Your task to perform on an android device: Open Youtube and go to "Your channel" Image 0: 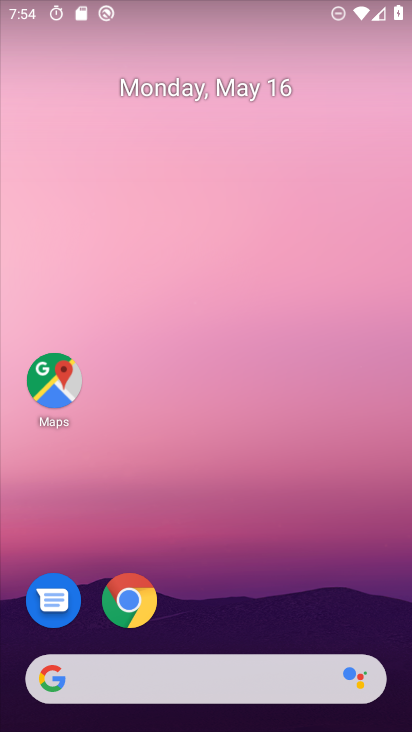
Step 0: drag from (194, 691) to (323, 277)
Your task to perform on an android device: Open Youtube and go to "Your channel" Image 1: 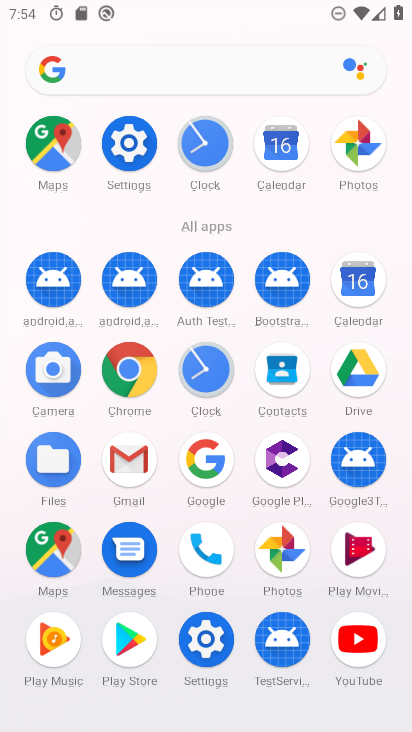
Step 1: click (367, 648)
Your task to perform on an android device: Open Youtube and go to "Your channel" Image 2: 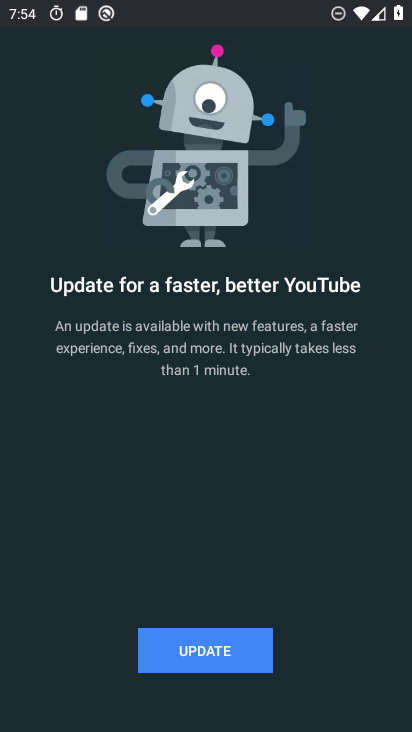
Step 2: click (212, 645)
Your task to perform on an android device: Open Youtube and go to "Your channel" Image 3: 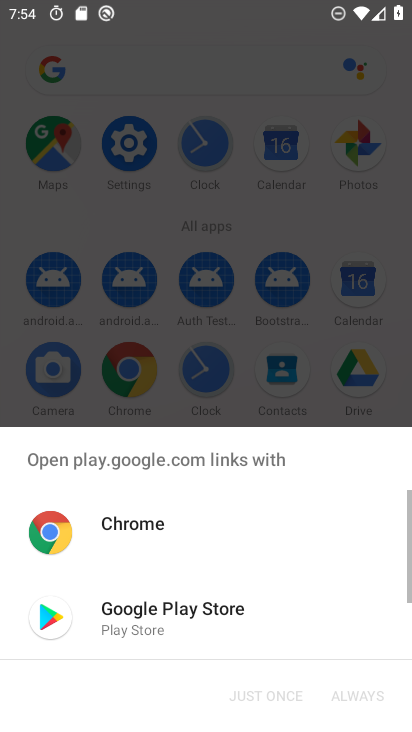
Step 3: click (175, 600)
Your task to perform on an android device: Open Youtube and go to "Your channel" Image 4: 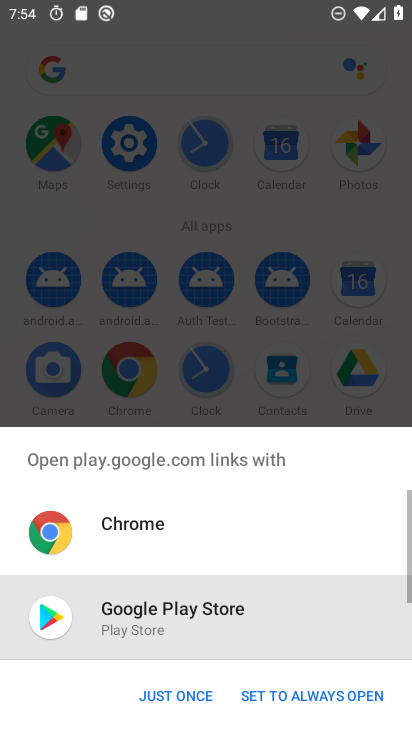
Step 4: click (200, 692)
Your task to perform on an android device: Open Youtube and go to "Your channel" Image 5: 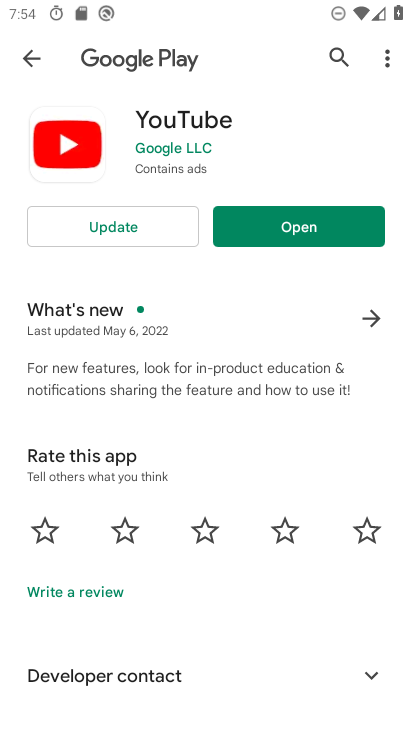
Step 5: click (136, 228)
Your task to perform on an android device: Open Youtube and go to "Your channel" Image 6: 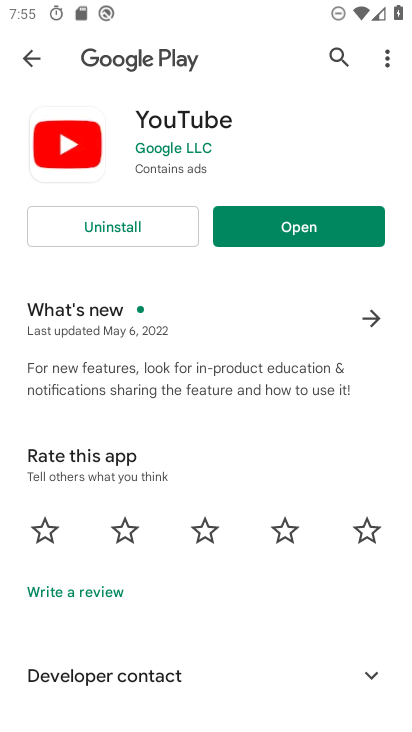
Step 6: click (315, 228)
Your task to perform on an android device: Open Youtube and go to "Your channel" Image 7: 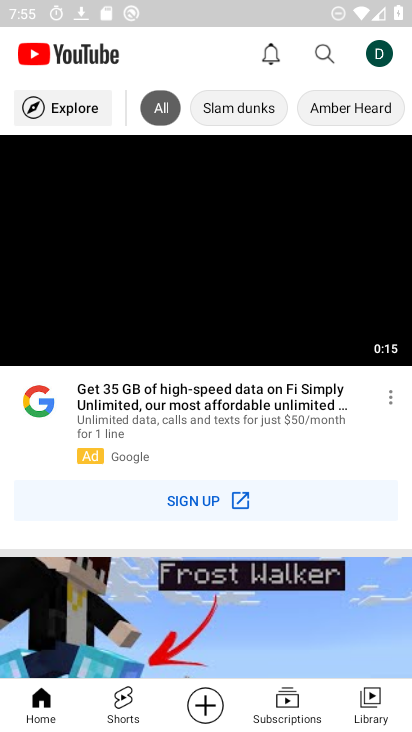
Step 7: click (377, 60)
Your task to perform on an android device: Open Youtube and go to "Your channel" Image 8: 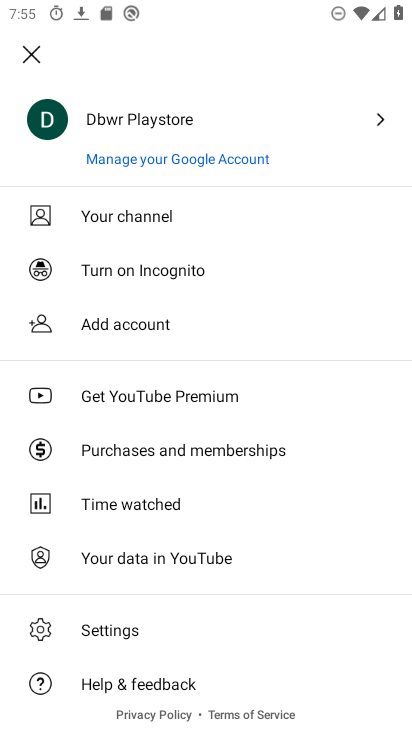
Step 8: click (166, 214)
Your task to perform on an android device: Open Youtube and go to "Your channel" Image 9: 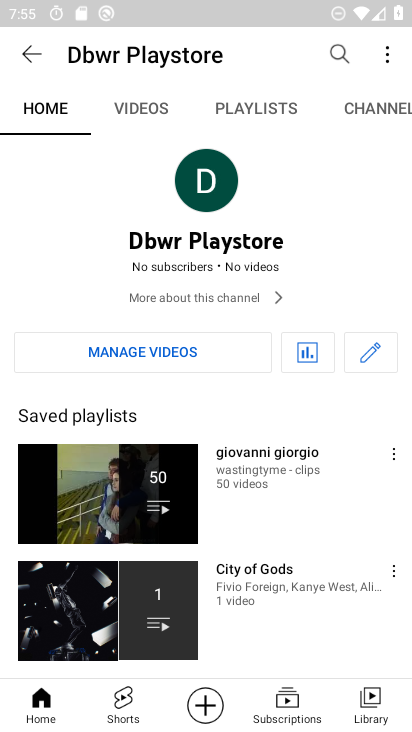
Step 9: task complete